Your task to perform on an android device: Open privacy settings Image 0: 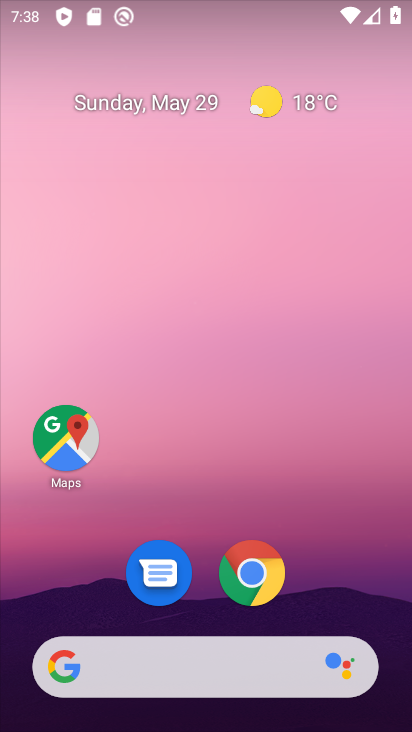
Step 0: click (294, 573)
Your task to perform on an android device: Open privacy settings Image 1: 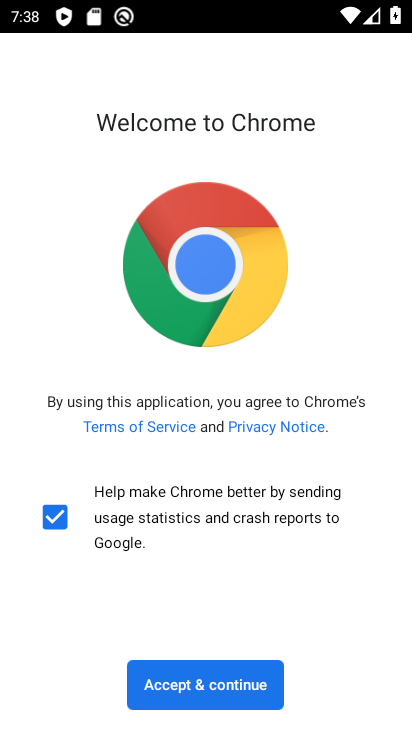
Step 1: click (225, 705)
Your task to perform on an android device: Open privacy settings Image 2: 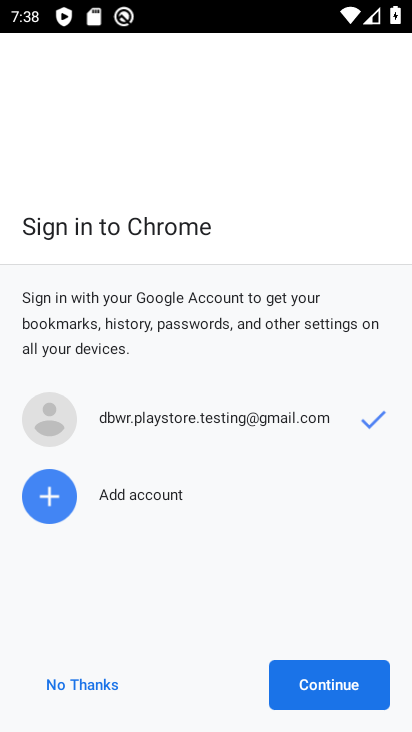
Step 2: click (225, 705)
Your task to perform on an android device: Open privacy settings Image 3: 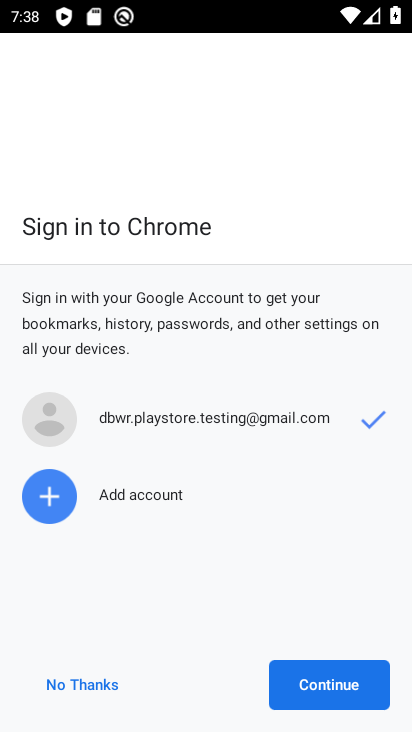
Step 3: click (301, 700)
Your task to perform on an android device: Open privacy settings Image 4: 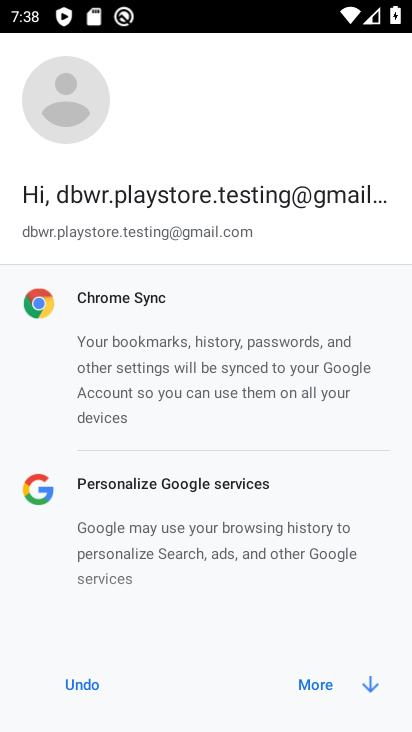
Step 4: click (332, 687)
Your task to perform on an android device: Open privacy settings Image 5: 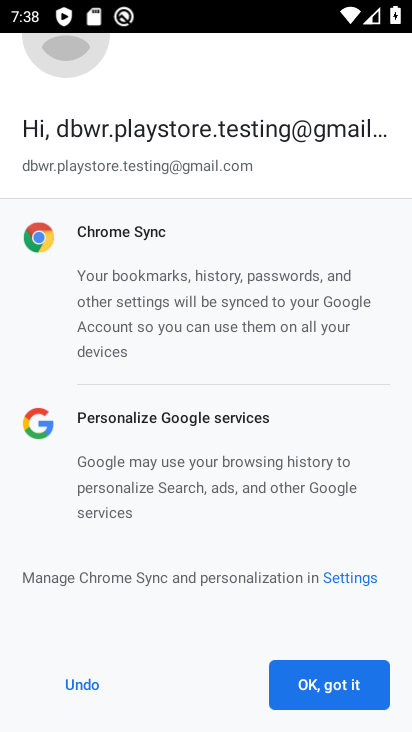
Step 5: click (332, 687)
Your task to perform on an android device: Open privacy settings Image 6: 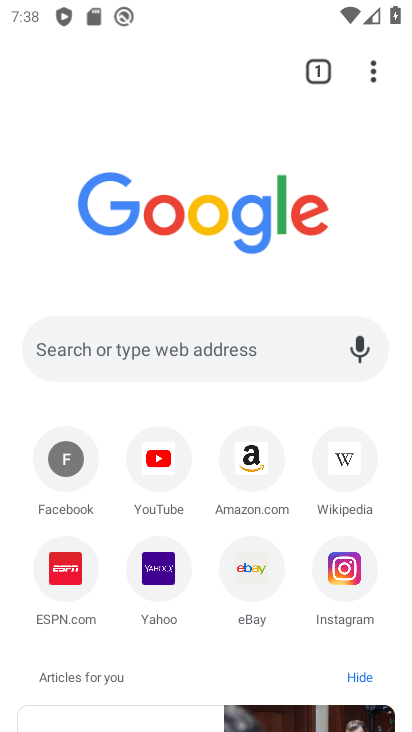
Step 6: drag from (371, 80) to (262, 609)
Your task to perform on an android device: Open privacy settings Image 7: 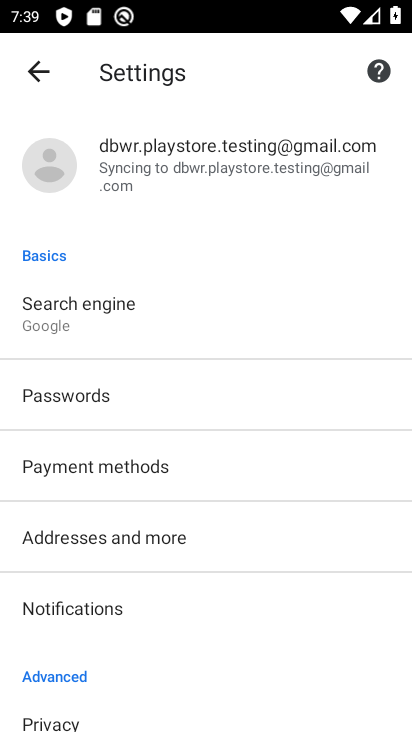
Step 7: drag from (156, 666) to (294, 239)
Your task to perform on an android device: Open privacy settings Image 8: 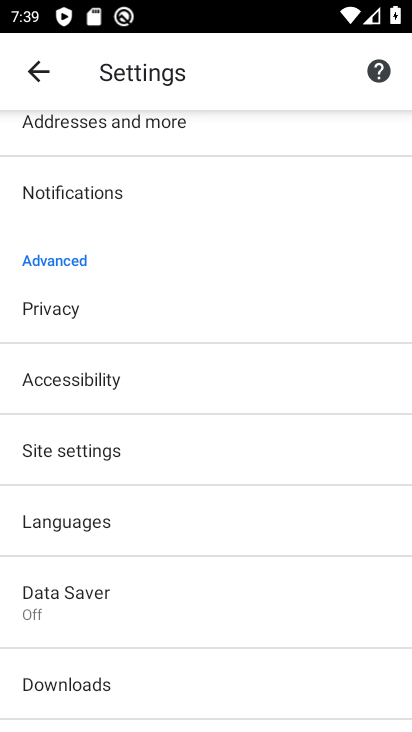
Step 8: click (153, 312)
Your task to perform on an android device: Open privacy settings Image 9: 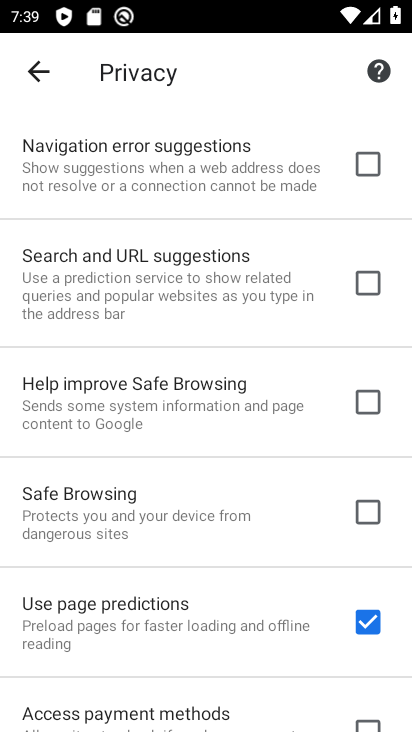
Step 9: task complete